Your task to perform on an android device: turn off smart reply in the gmail app Image 0: 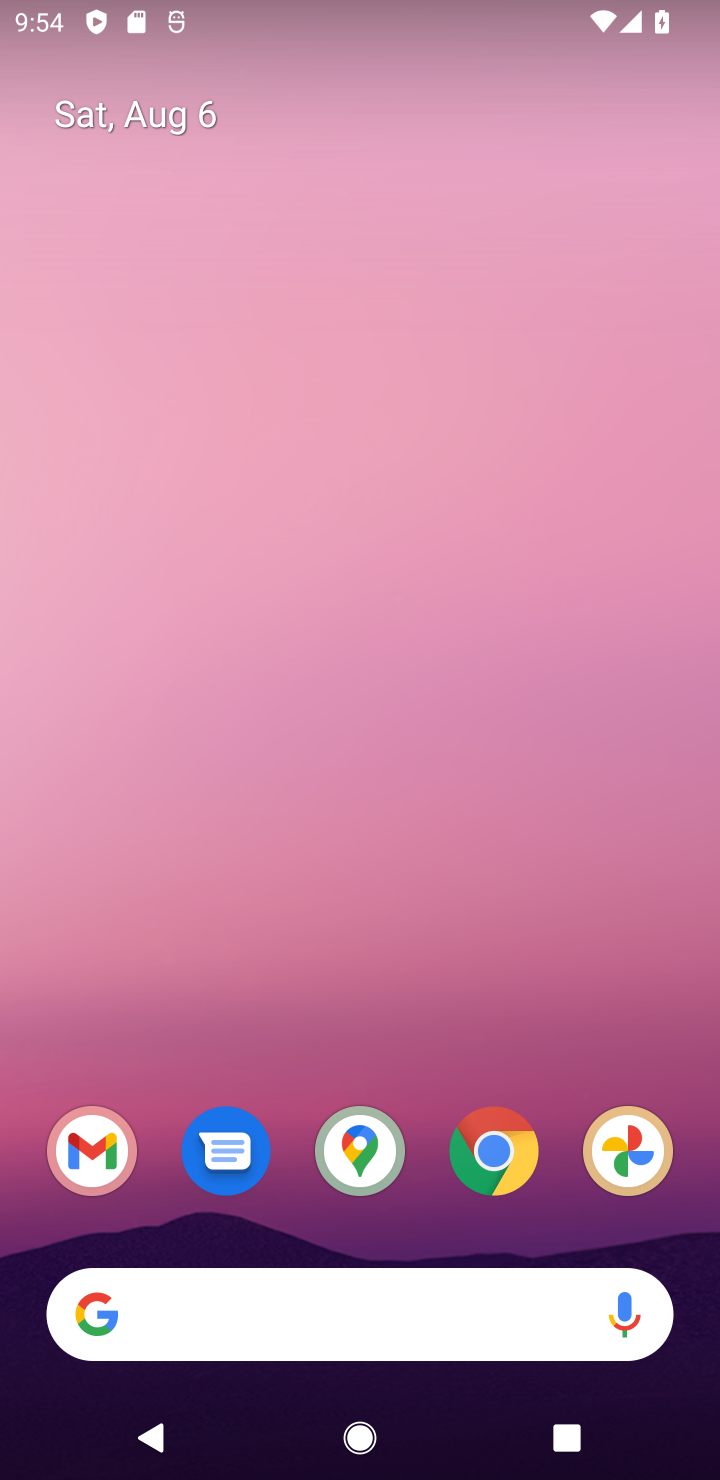
Step 0: drag from (399, 853) to (397, 361)
Your task to perform on an android device: turn off smart reply in the gmail app Image 1: 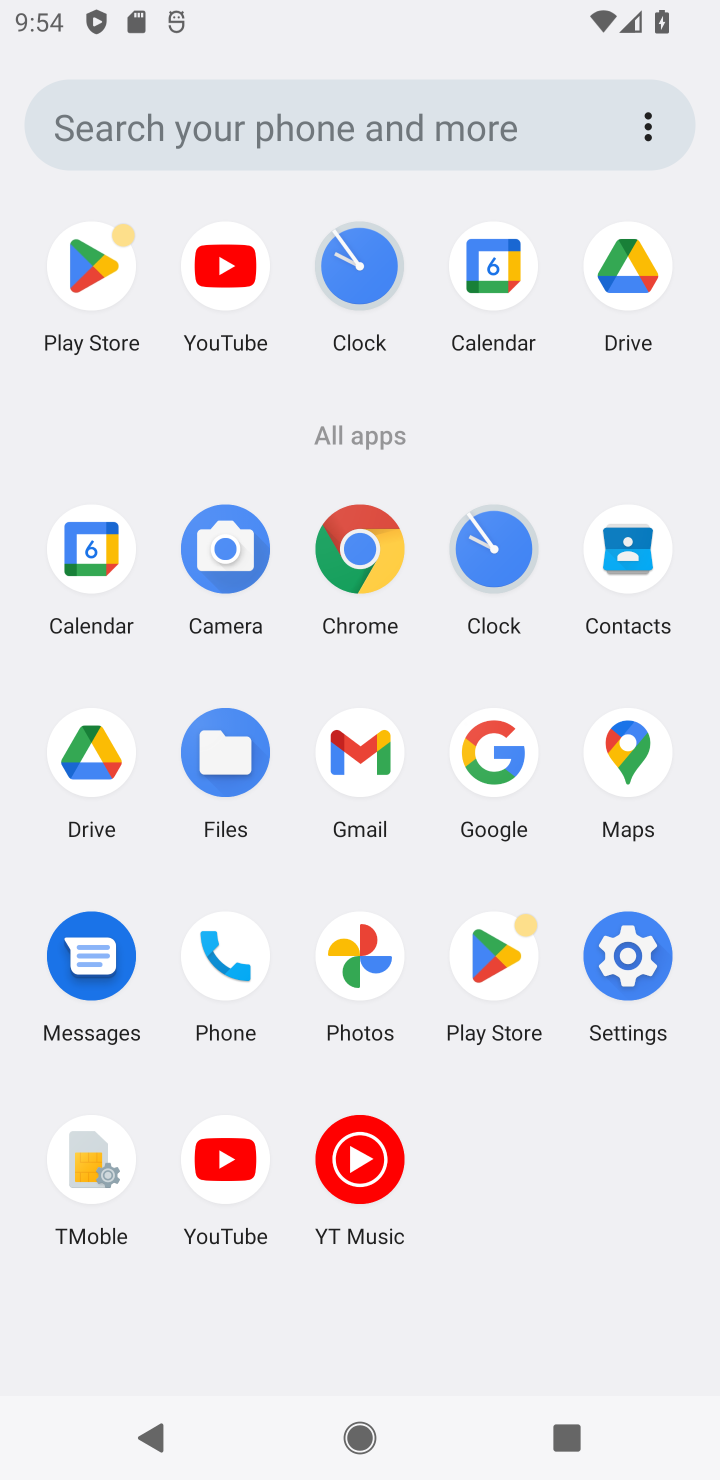
Step 1: click (369, 751)
Your task to perform on an android device: turn off smart reply in the gmail app Image 2: 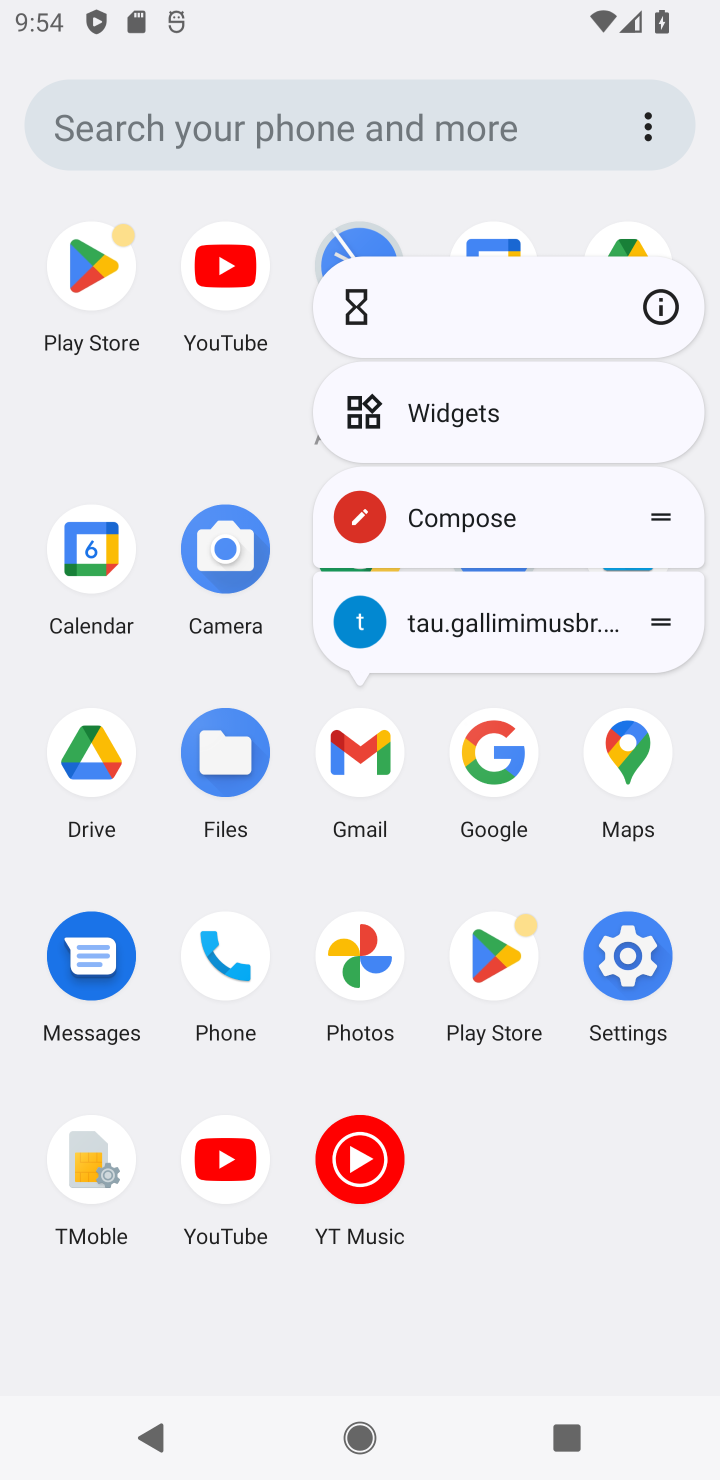
Step 2: click (363, 762)
Your task to perform on an android device: turn off smart reply in the gmail app Image 3: 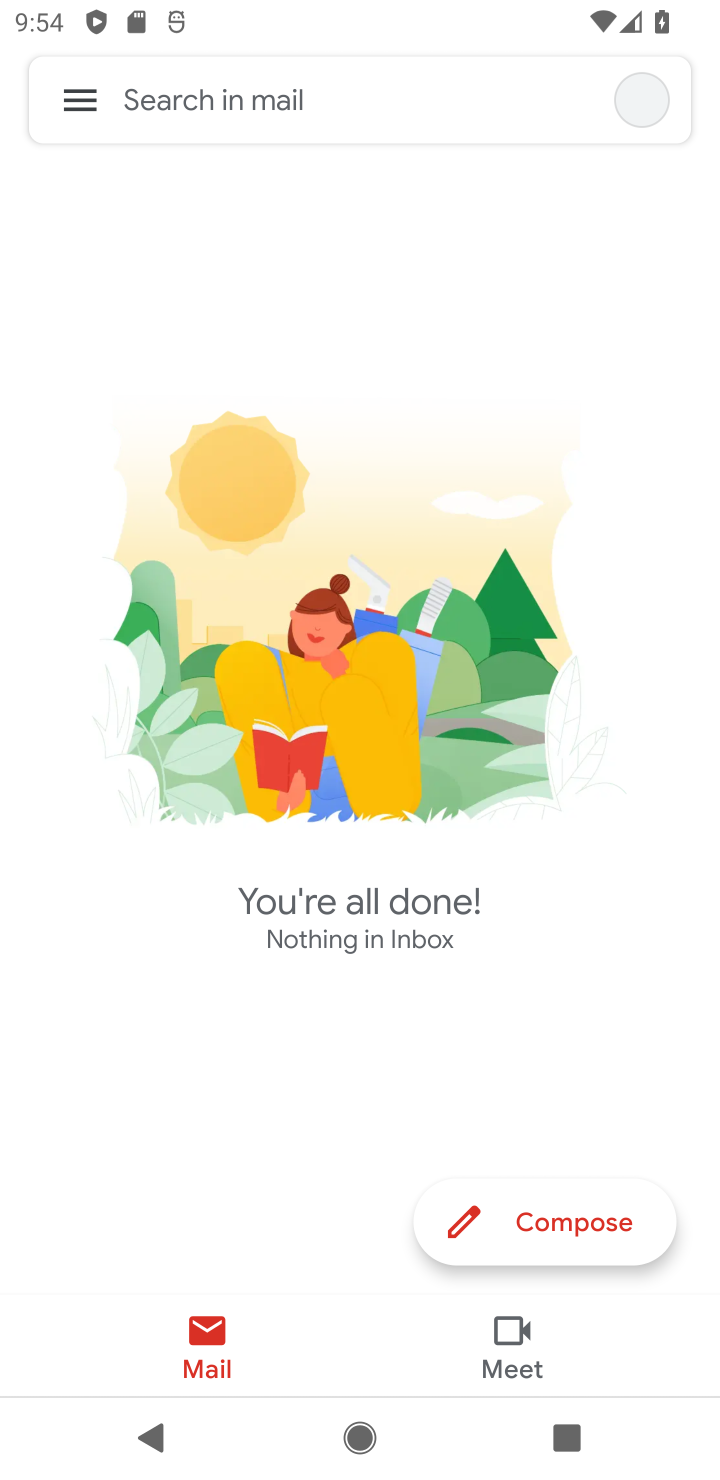
Step 3: task complete